Your task to perform on an android device: Go to internet settings Image 0: 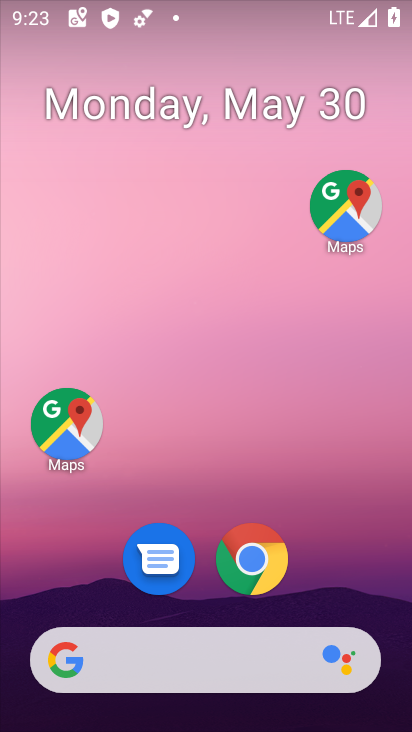
Step 0: drag from (326, 411) to (319, 121)
Your task to perform on an android device: Go to internet settings Image 1: 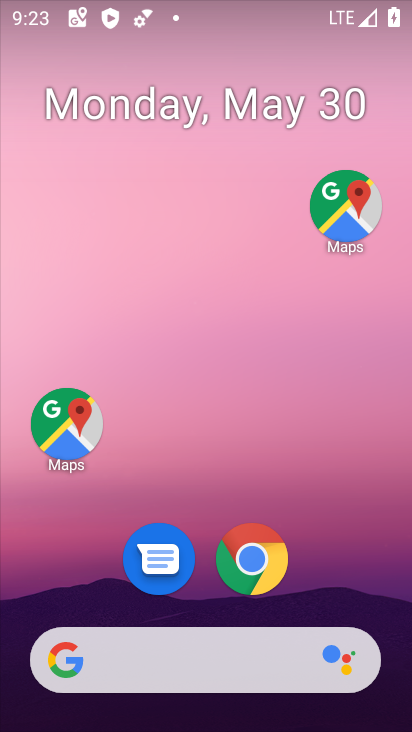
Step 1: drag from (295, 522) to (282, 93)
Your task to perform on an android device: Go to internet settings Image 2: 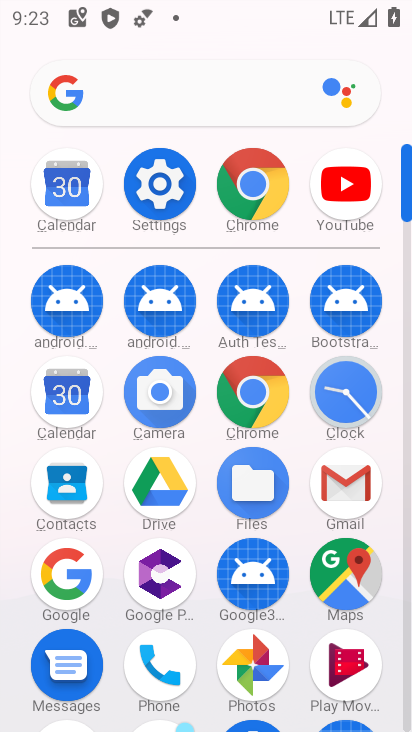
Step 2: click (171, 174)
Your task to perform on an android device: Go to internet settings Image 3: 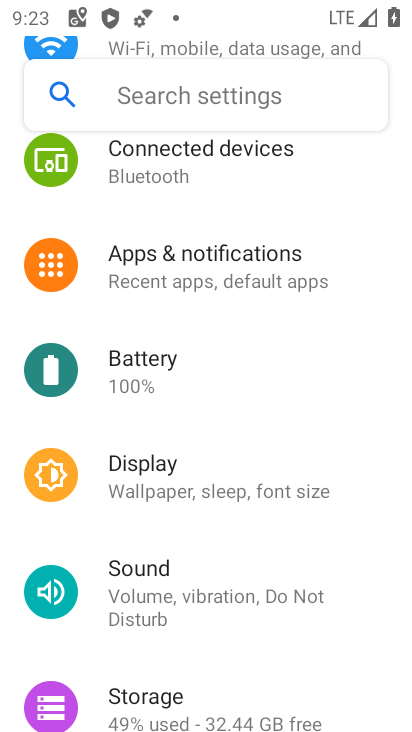
Step 3: drag from (226, 192) to (195, 522)
Your task to perform on an android device: Go to internet settings Image 4: 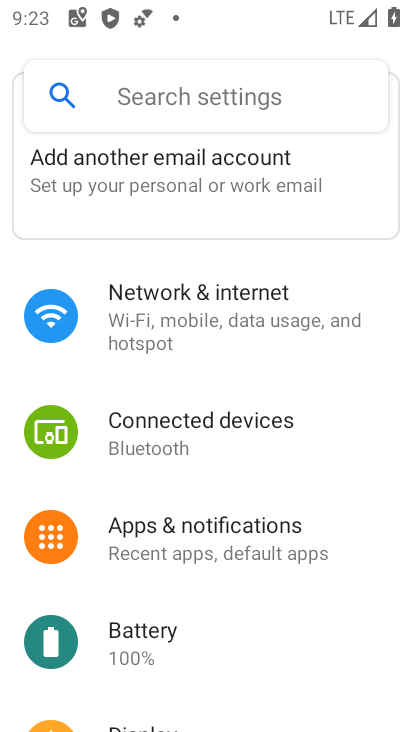
Step 4: click (186, 311)
Your task to perform on an android device: Go to internet settings Image 5: 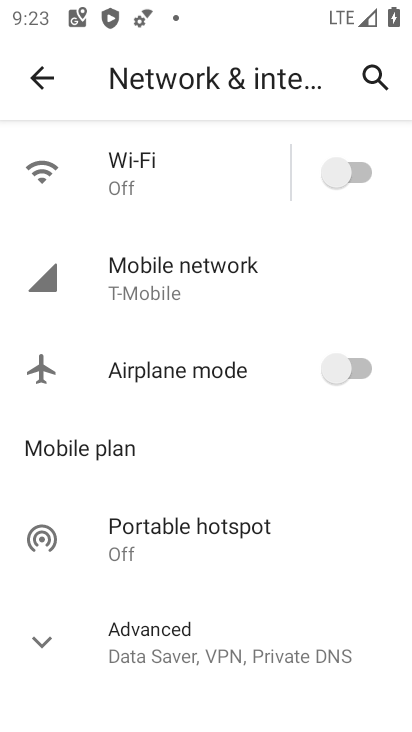
Step 5: click (180, 628)
Your task to perform on an android device: Go to internet settings Image 6: 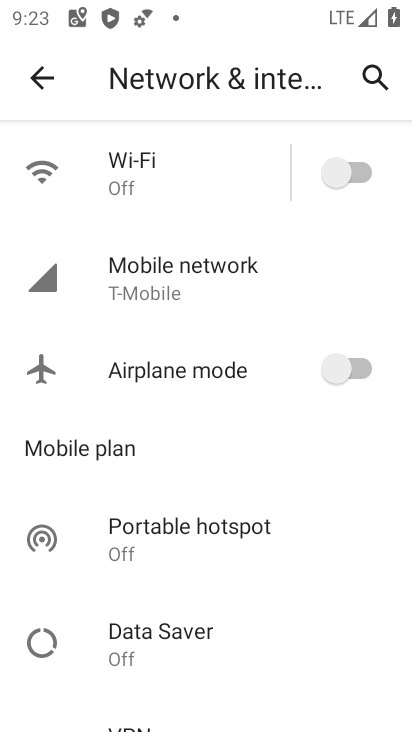
Step 6: task complete